Your task to perform on an android device: Go to Google maps Image 0: 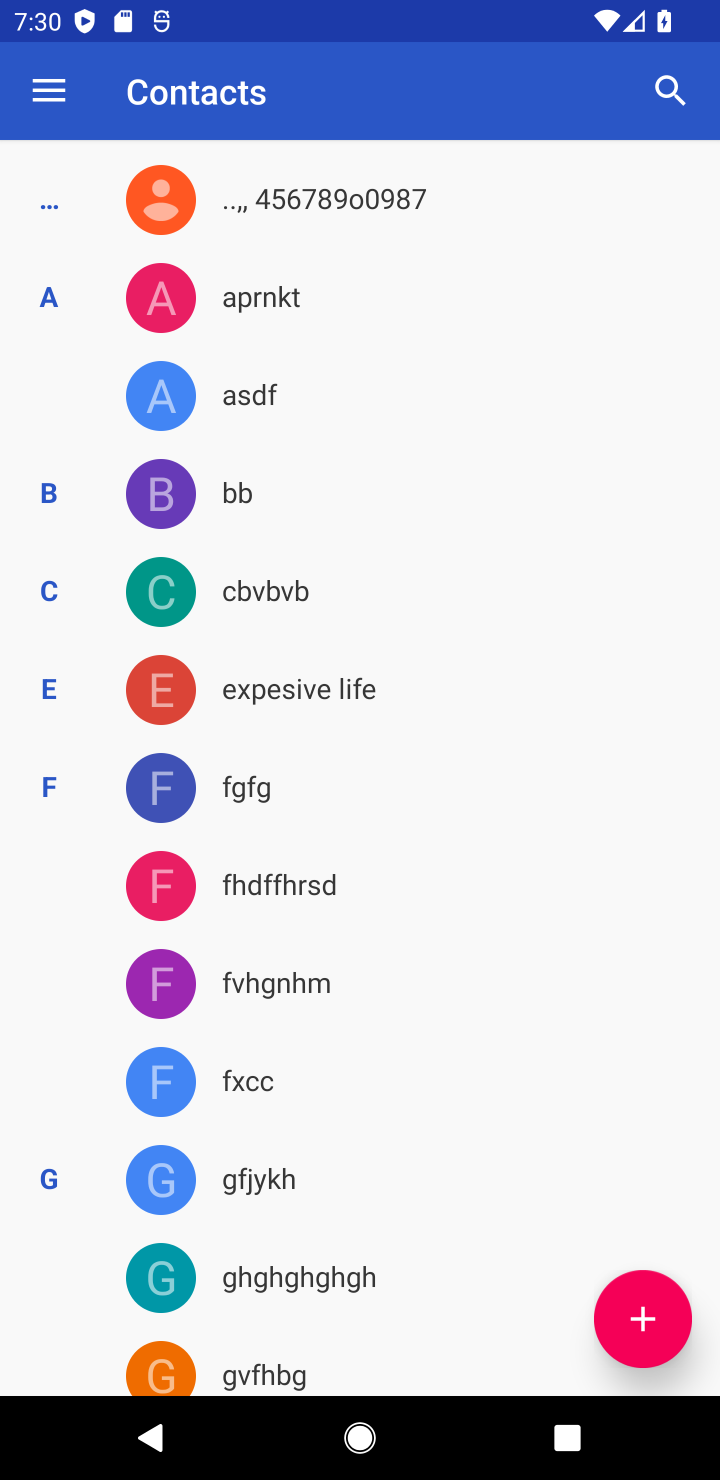
Step 0: press home button
Your task to perform on an android device: Go to Google maps Image 1: 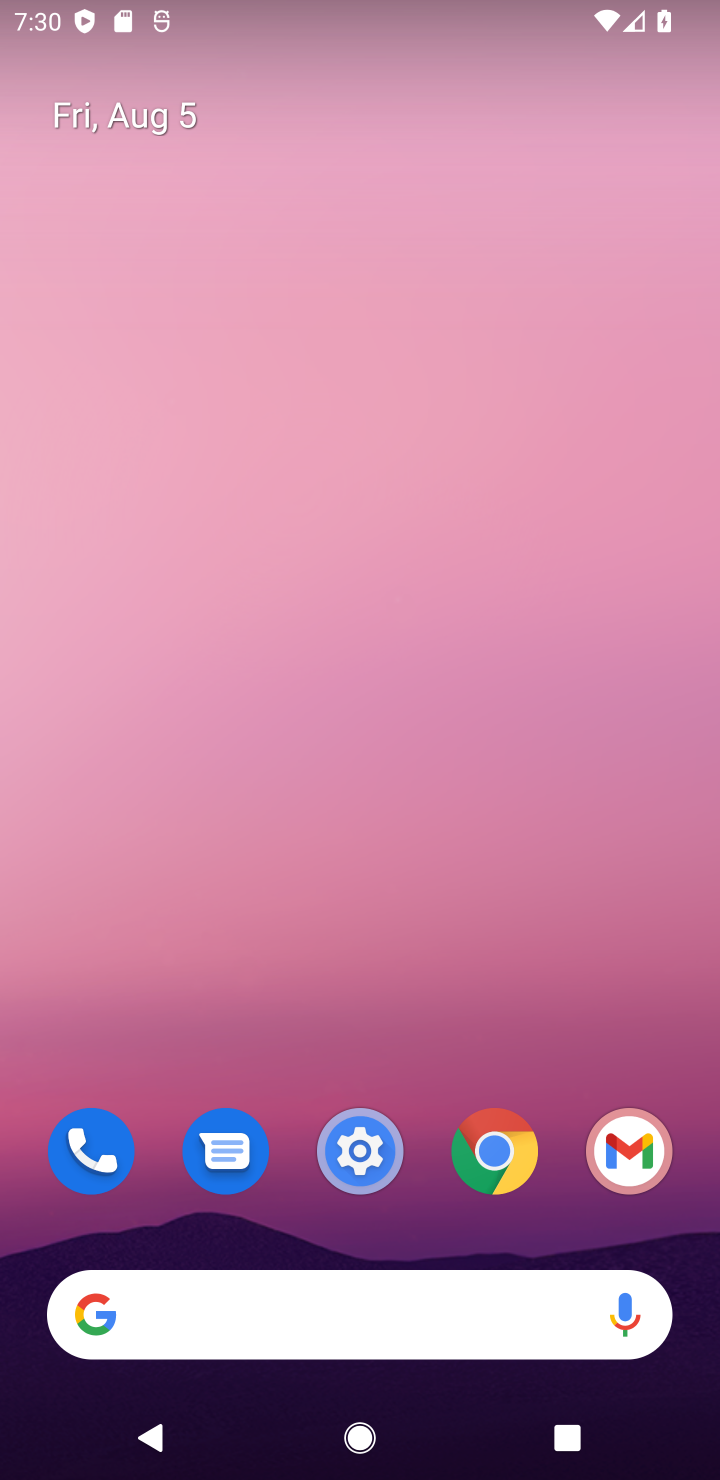
Step 1: drag from (377, 1253) to (528, 60)
Your task to perform on an android device: Go to Google maps Image 2: 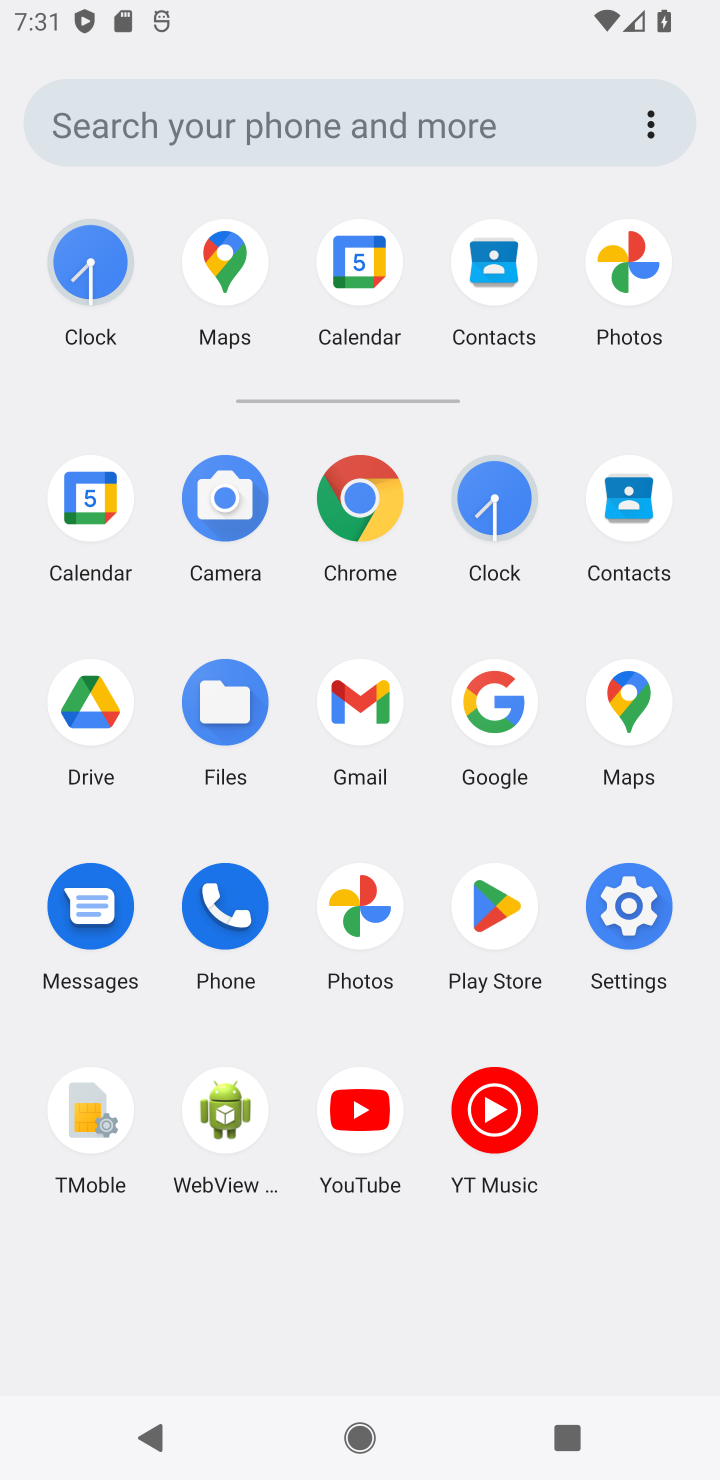
Step 2: click (625, 712)
Your task to perform on an android device: Go to Google maps Image 3: 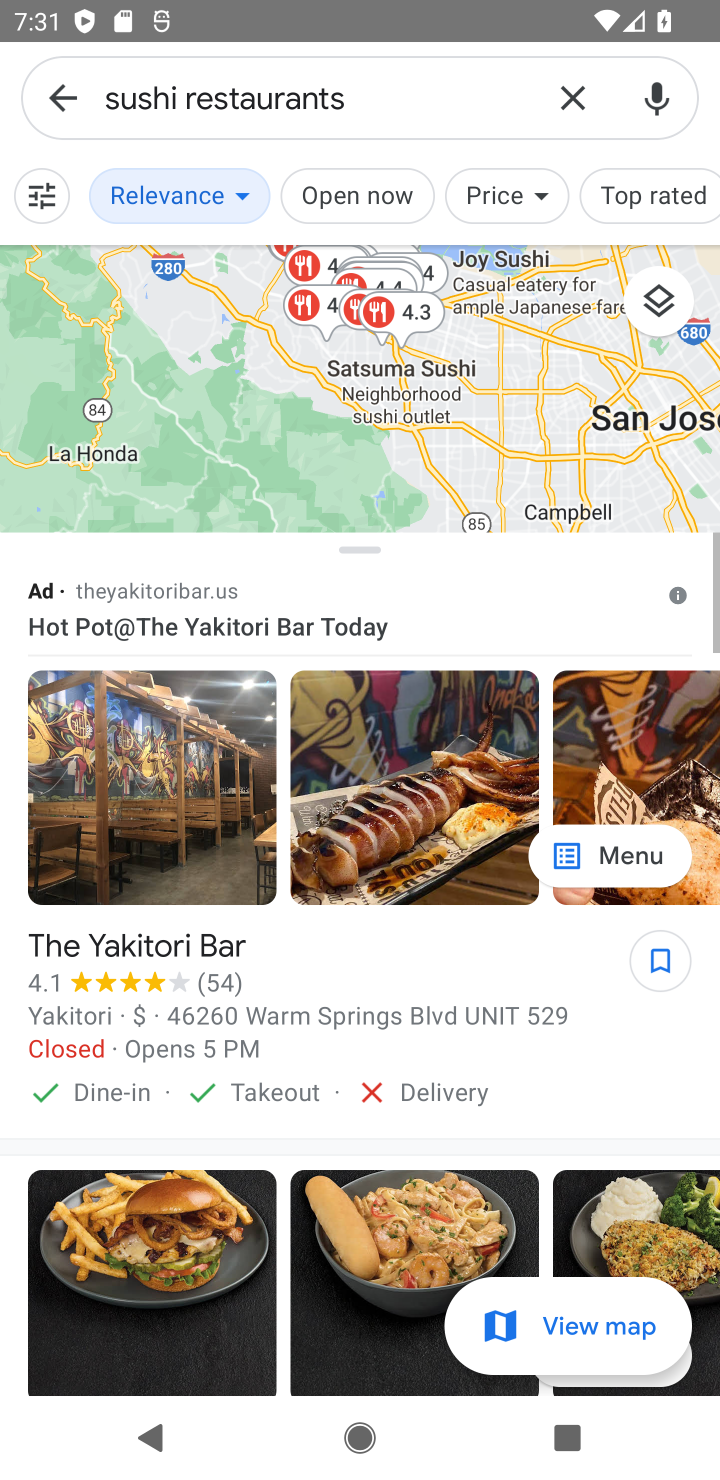
Step 3: click (59, 98)
Your task to perform on an android device: Go to Google maps Image 4: 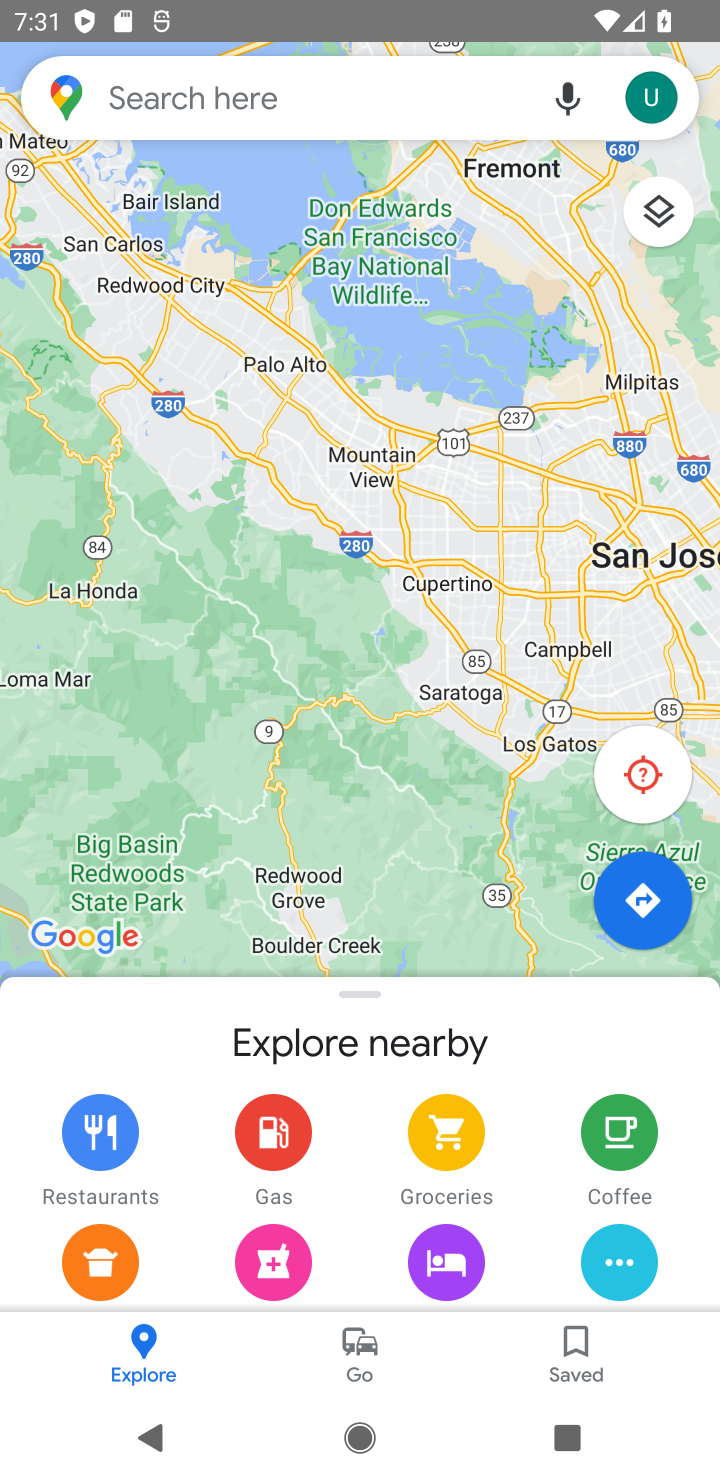
Step 4: task complete